Your task to perform on an android device: find snoozed emails in the gmail app Image 0: 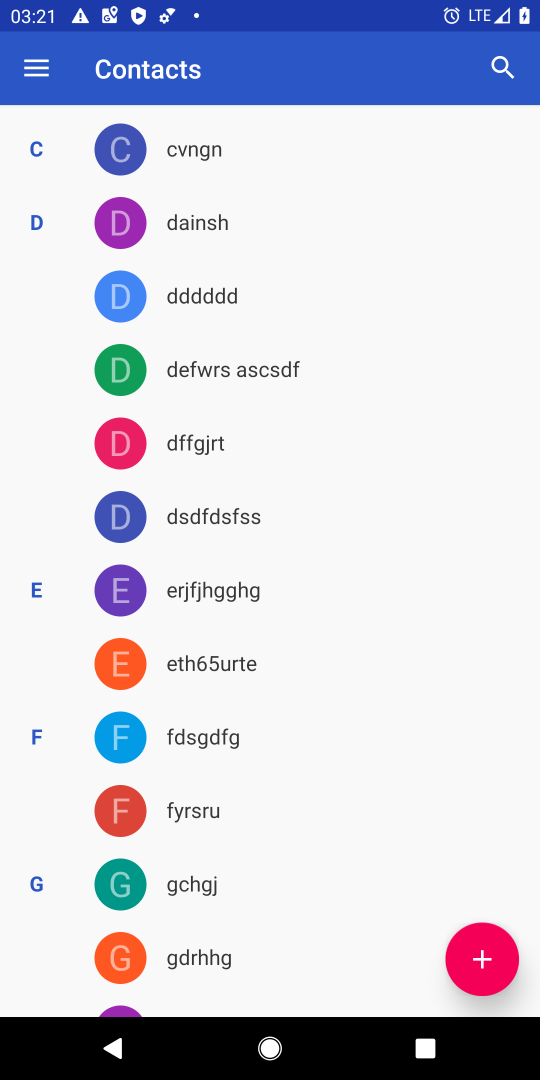
Step 0: press home button
Your task to perform on an android device: find snoozed emails in the gmail app Image 1: 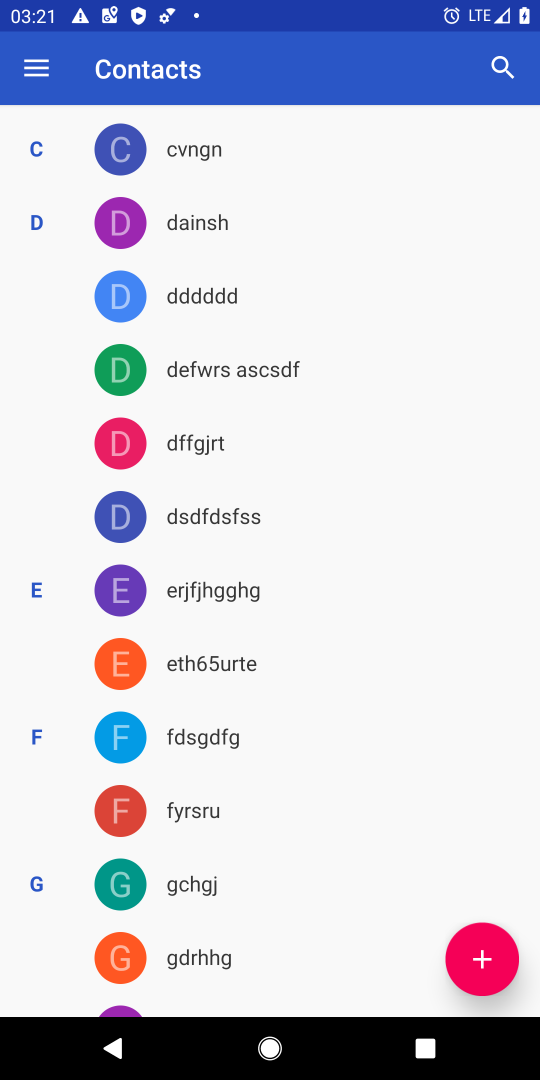
Step 1: press home button
Your task to perform on an android device: find snoozed emails in the gmail app Image 2: 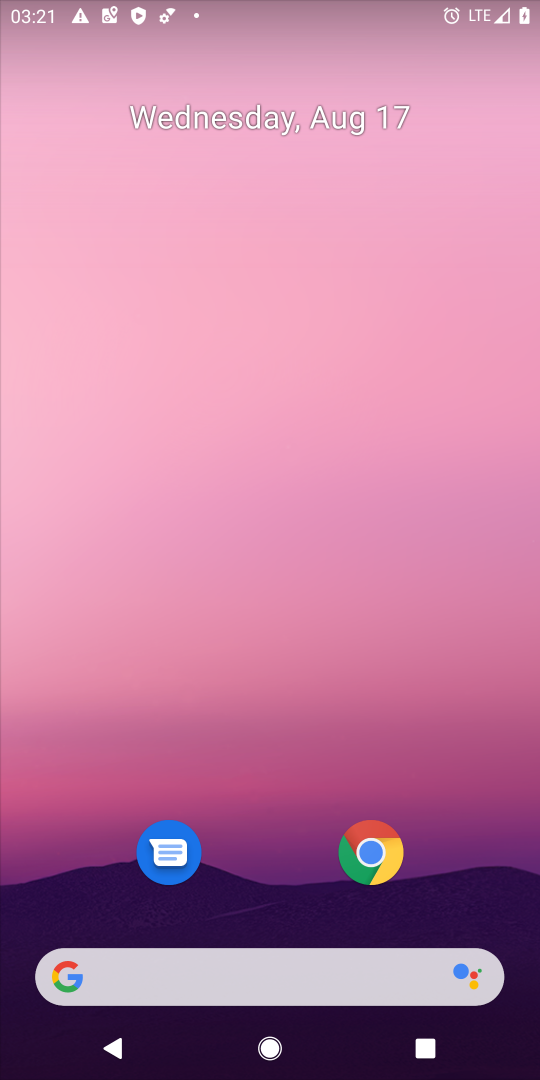
Step 2: drag from (250, 869) to (293, 211)
Your task to perform on an android device: find snoozed emails in the gmail app Image 3: 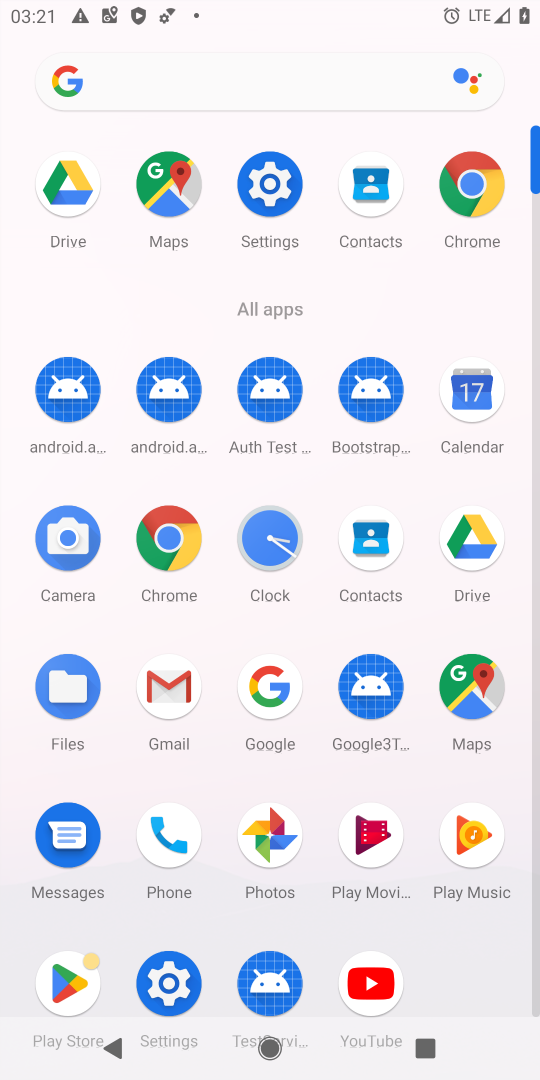
Step 3: click (180, 674)
Your task to perform on an android device: find snoozed emails in the gmail app Image 4: 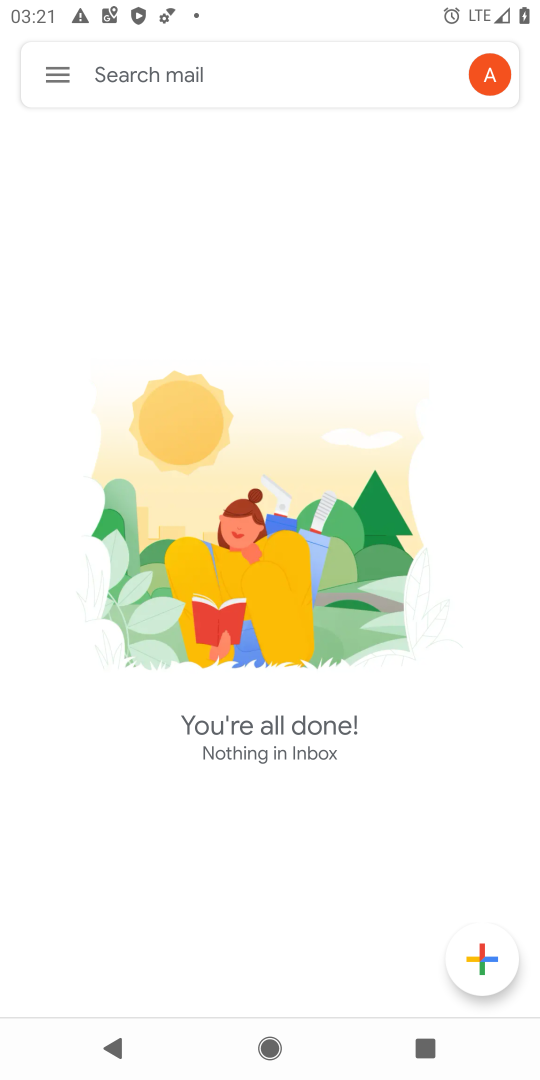
Step 4: click (39, 77)
Your task to perform on an android device: find snoozed emails in the gmail app Image 5: 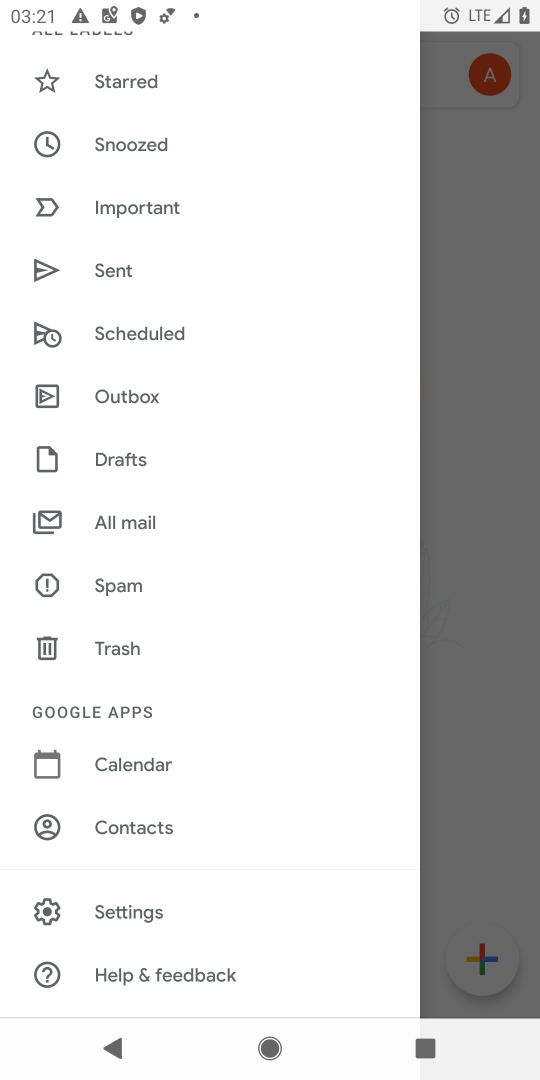
Step 5: click (144, 142)
Your task to perform on an android device: find snoozed emails in the gmail app Image 6: 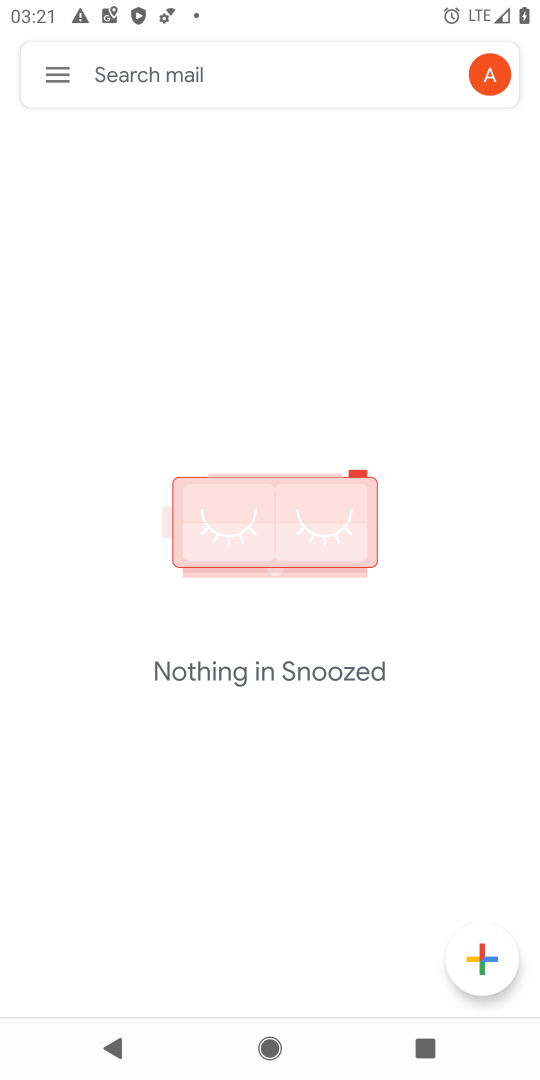
Step 6: task complete